Your task to perform on an android device: Go to eBay Image 0: 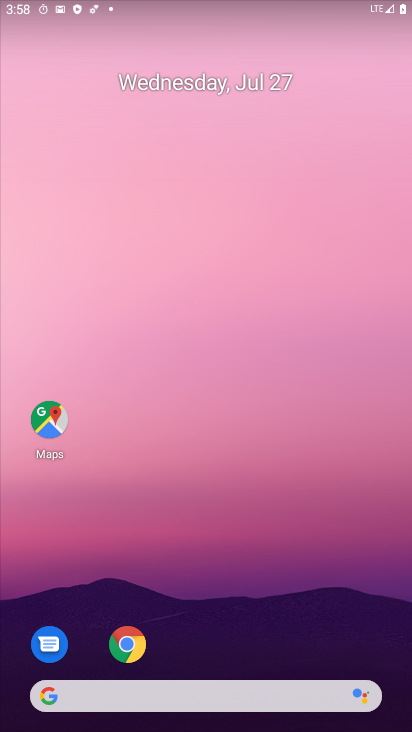
Step 0: click (129, 638)
Your task to perform on an android device: Go to eBay Image 1: 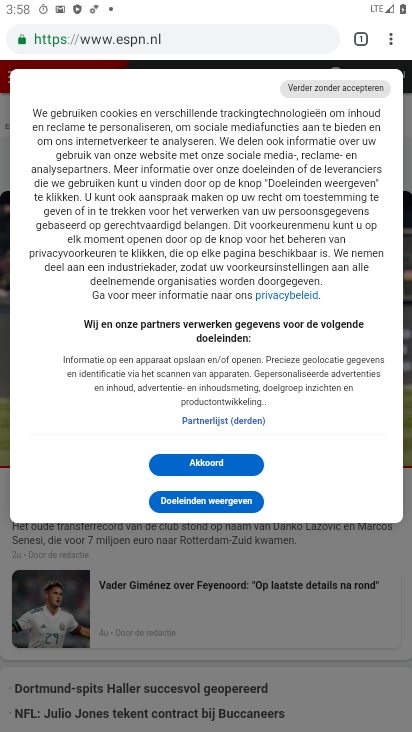
Step 1: click (202, 460)
Your task to perform on an android device: Go to eBay Image 2: 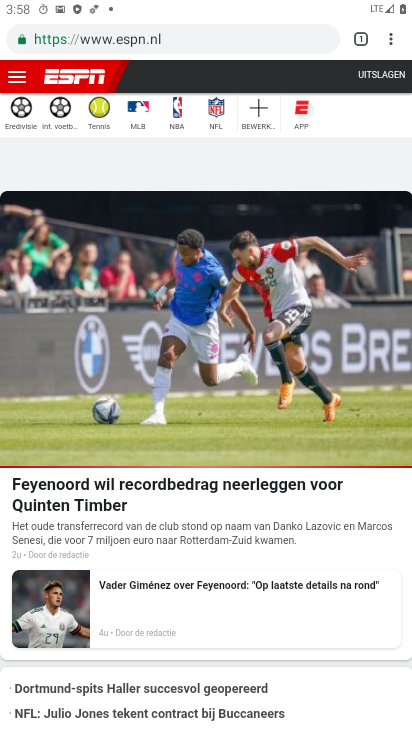
Step 2: click (389, 43)
Your task to perform on an android device: Go to eBay Image 3: 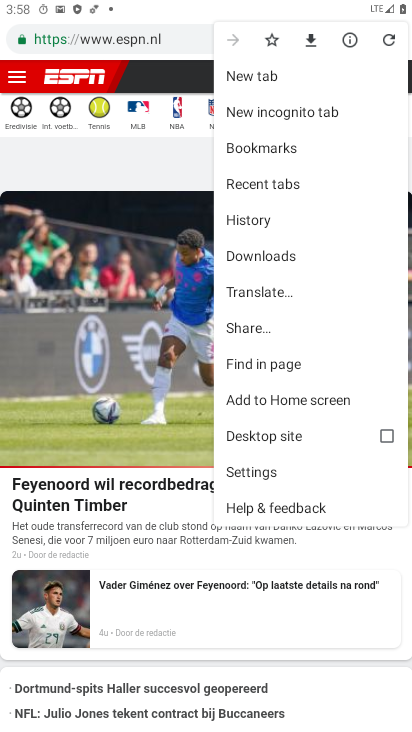
Step 3: click (236, 74)
Your task to perform on an android device: Go to eBay Image 4: 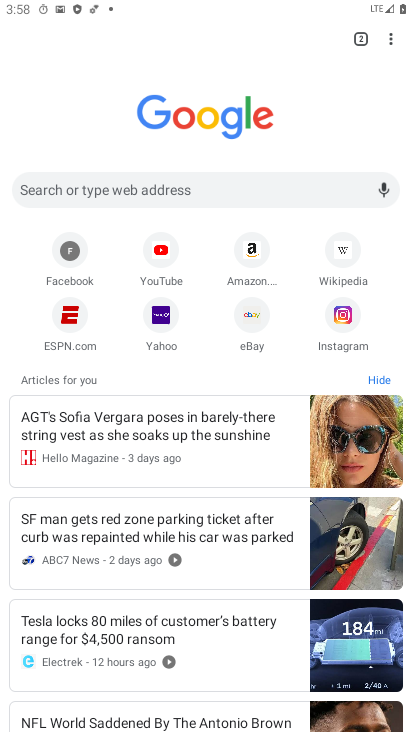
Step 4: click (252, 322)
Your task to perform on an android device: Go to eBay Image 5: 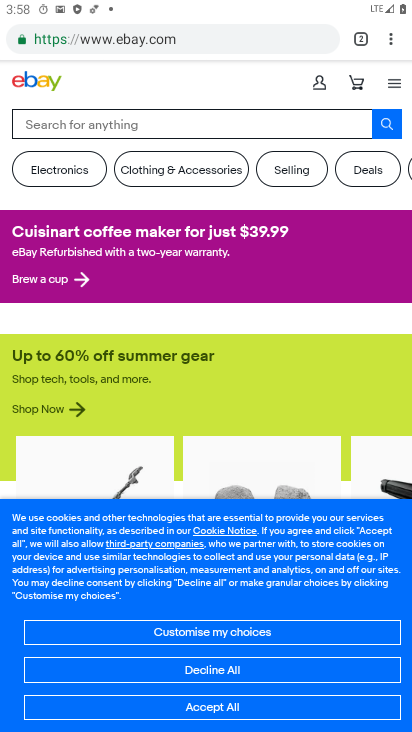
Step 5: task complete